Your task to perform on an android device: turn off smart reply in the gmail app Image 0: 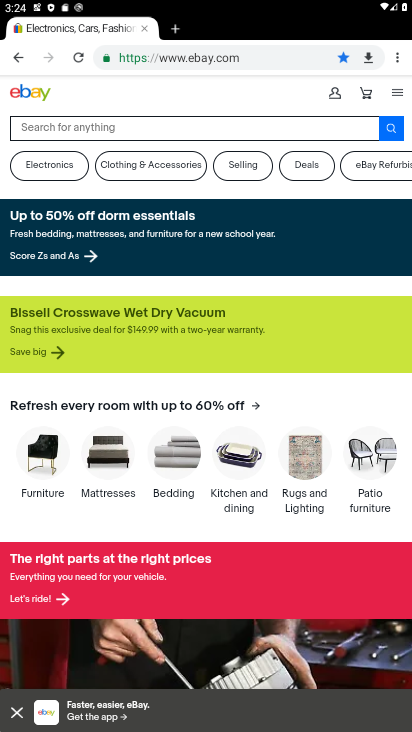
Step 0: press home button
Your task to perform on an android device: turn off smart reply in the gmail app Image 1: 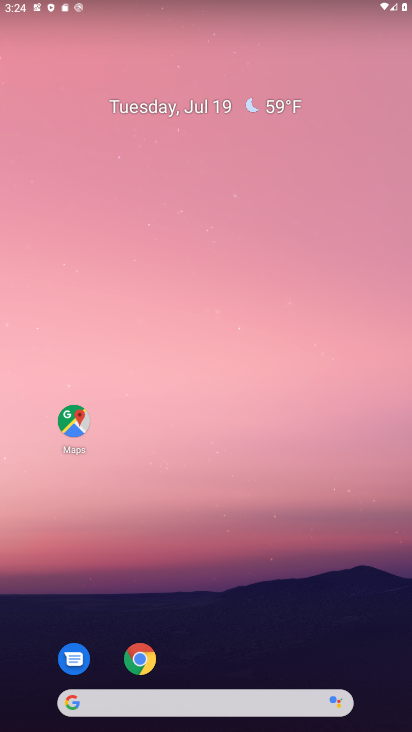
Step 1: drag from (215, 696) to (231, 169)
Your task to perform on an android device: turn off smart reply in the gmail app Image 2: 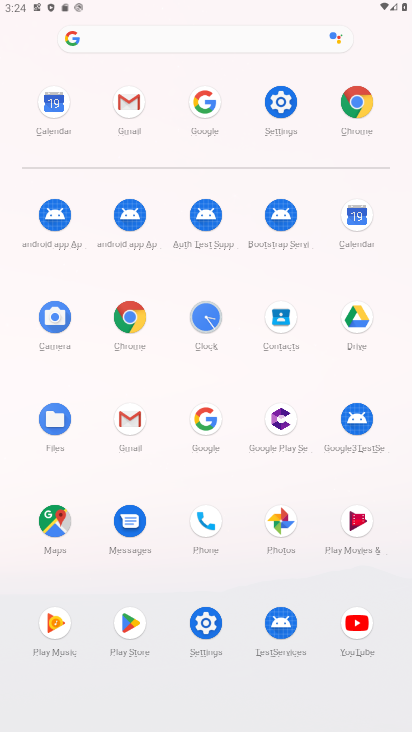
Step 2: click (128, 102)
Your task to perform on an android device: turn off smart reply in the gmail app Image 3: 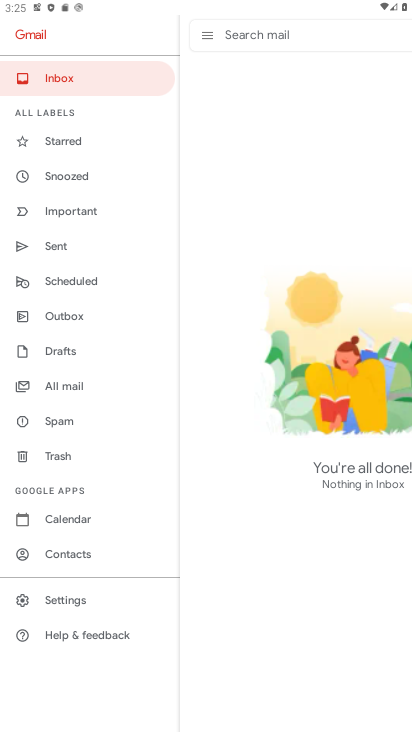
Step 3: click (64, 598)
Your task to perform on an android device: turn off smart reply in the gmail app Image 4: 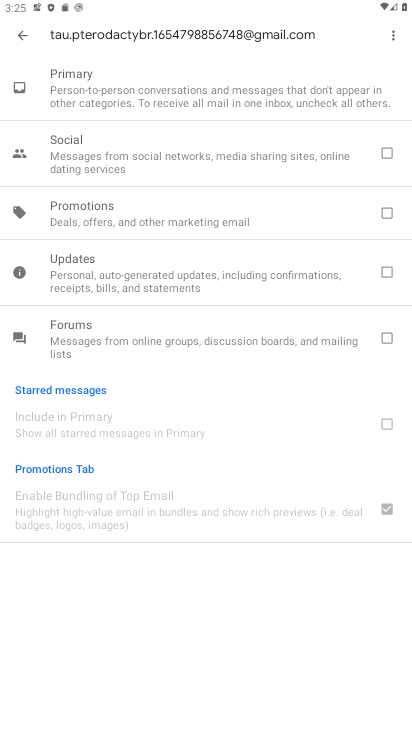
Step 4: task complete